Your task to perform on an android device: change the clock display to digital Image 0: 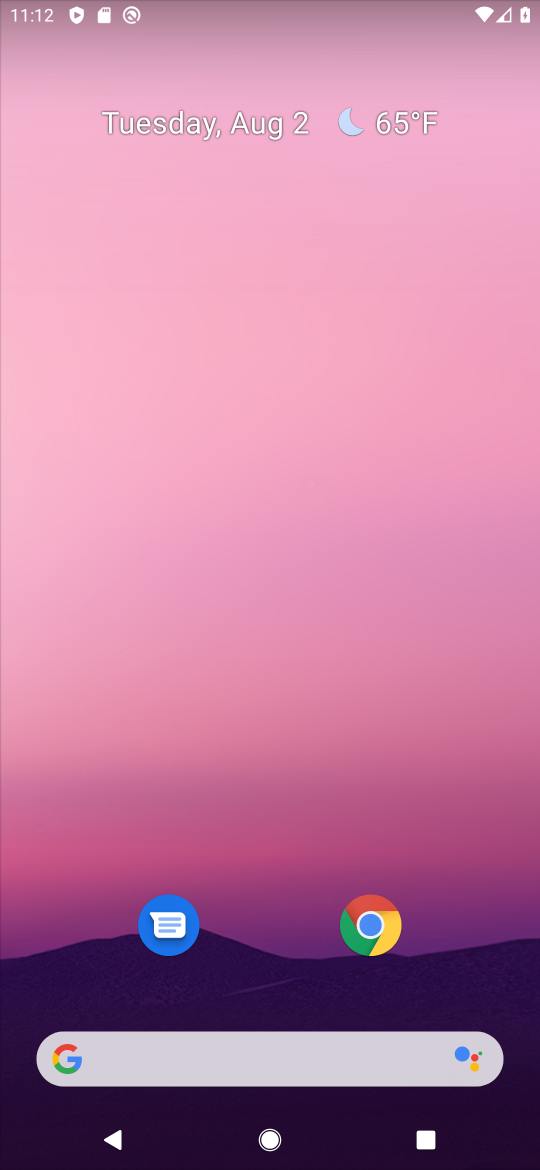
Step 0: press back button
Your task to perform on an android device: change the clock display to digital Image 1: 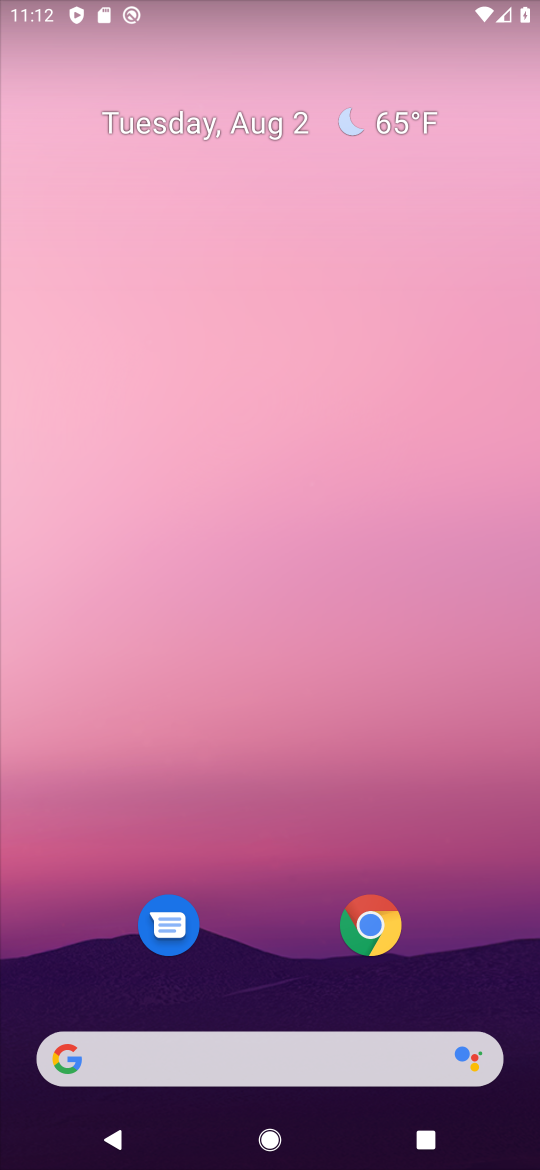
Step 1: drag from (495, 853) to (377, 50)
Your task to perform on an android device: change the clock display to digital Image 2: 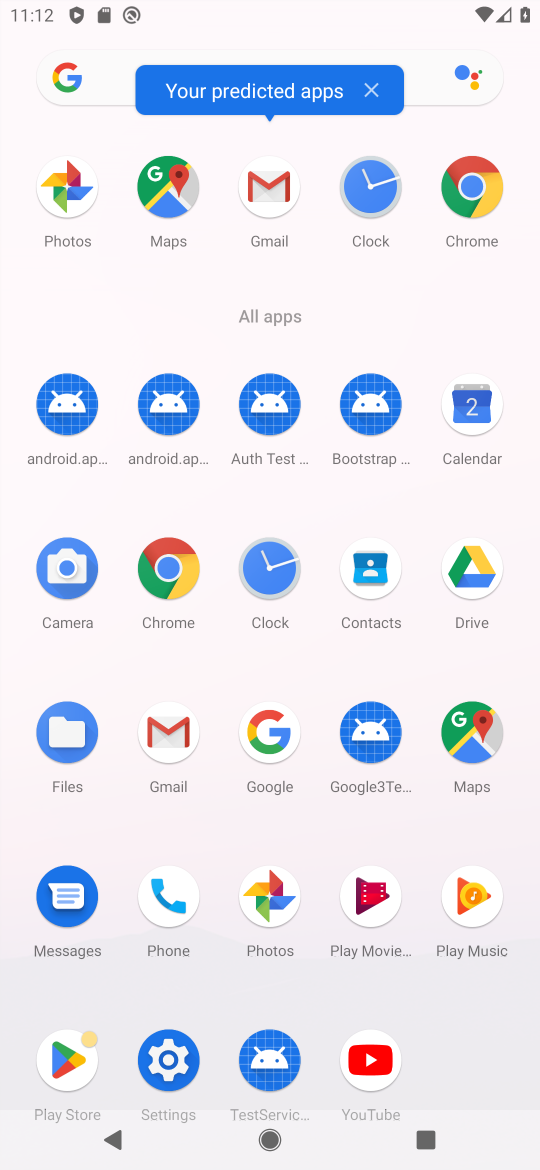
Step 2: click (381, 184)
Your task to perform on an android device: change the clock display to digital Image 3: 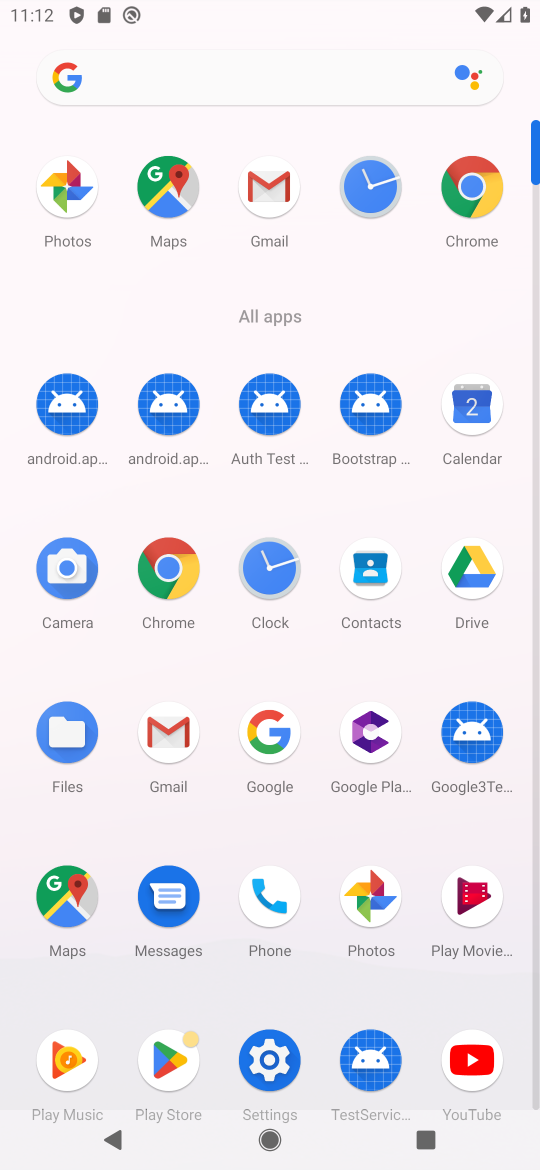
Step 3: click (351, 187)
Your task to perform on an android device: change the clock display to digital Image 4: 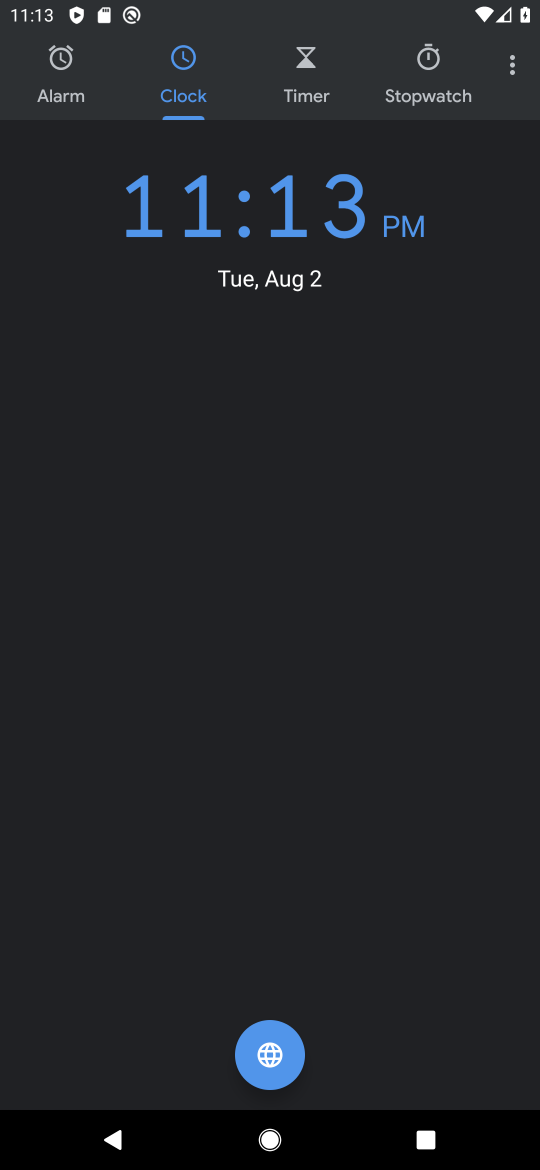
Step 4: click (520, 71)
Your task to perform on an android device: change the clock display to digital Image 5: 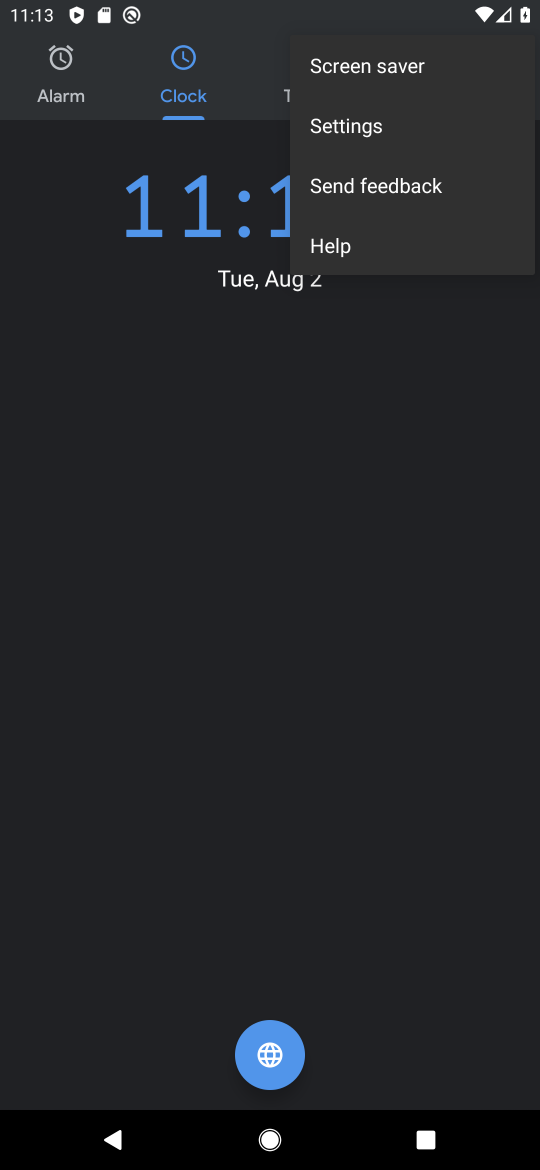
Step 5: click (391, 136)
Your task to perform on an android device: change the clock display to digital Image 6: 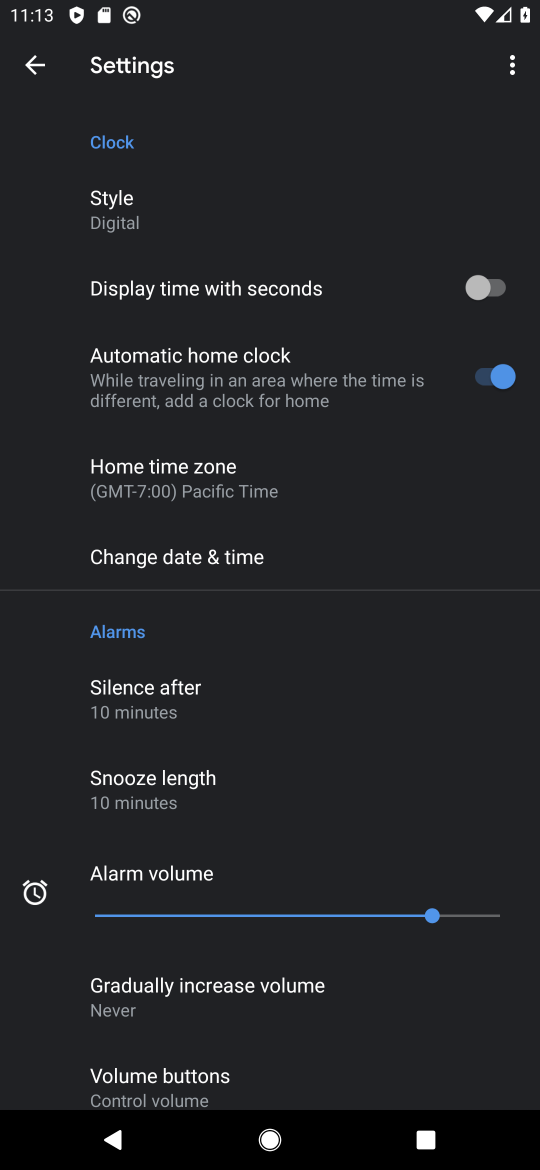
Step 6: click (238, 220)
Your task to perform on an android device: change the clock display to digital Image 7: 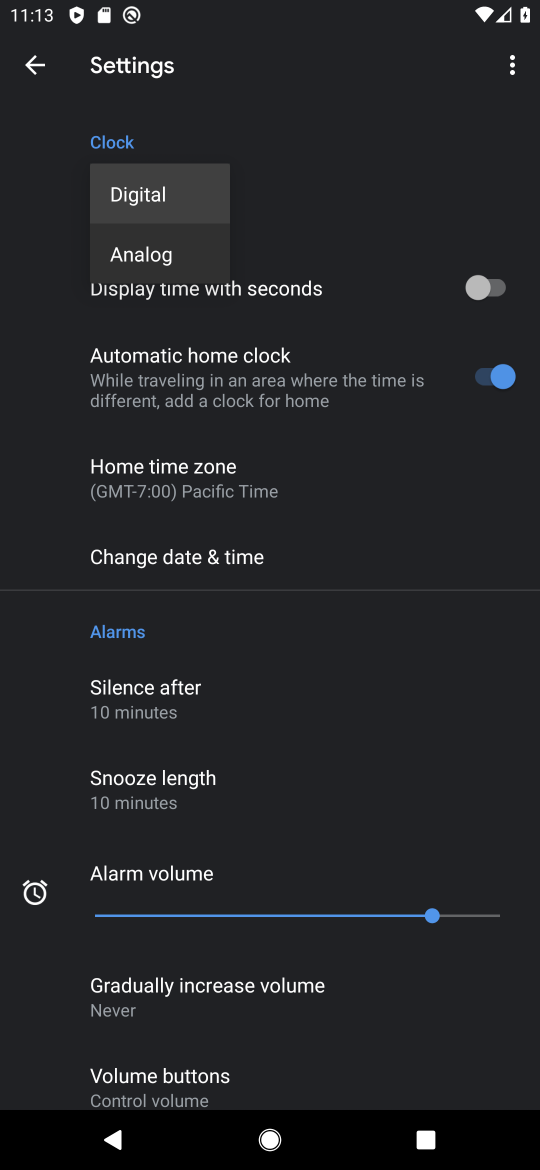
Step 7: task complete